Your task to perform on an android device: turn off notifications in google photos Image 0: 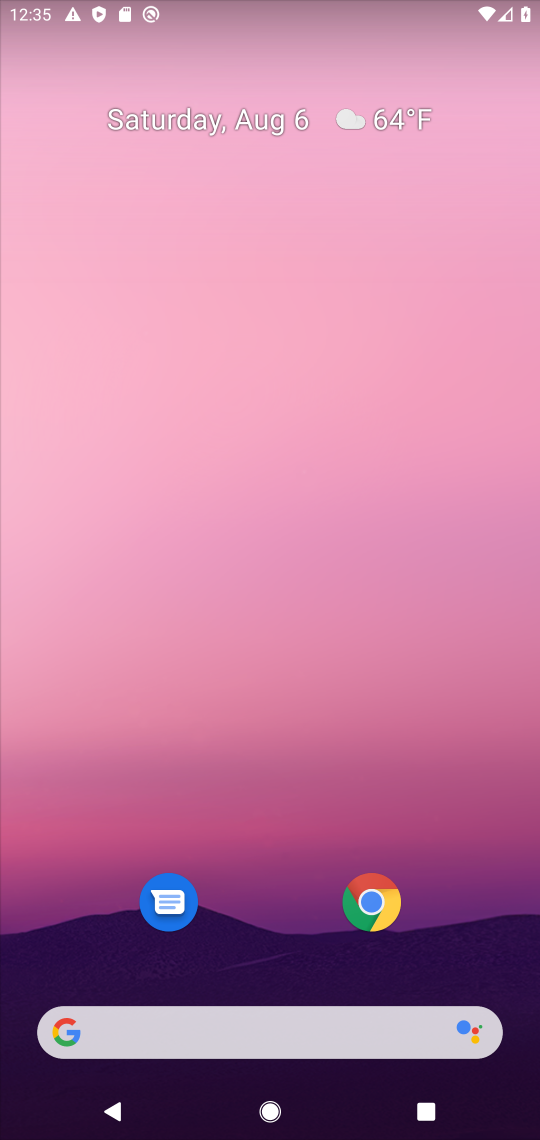
Step 0: click (387, 687)
Your task to perform on an android device: turn off notifications in google photos Image 1: 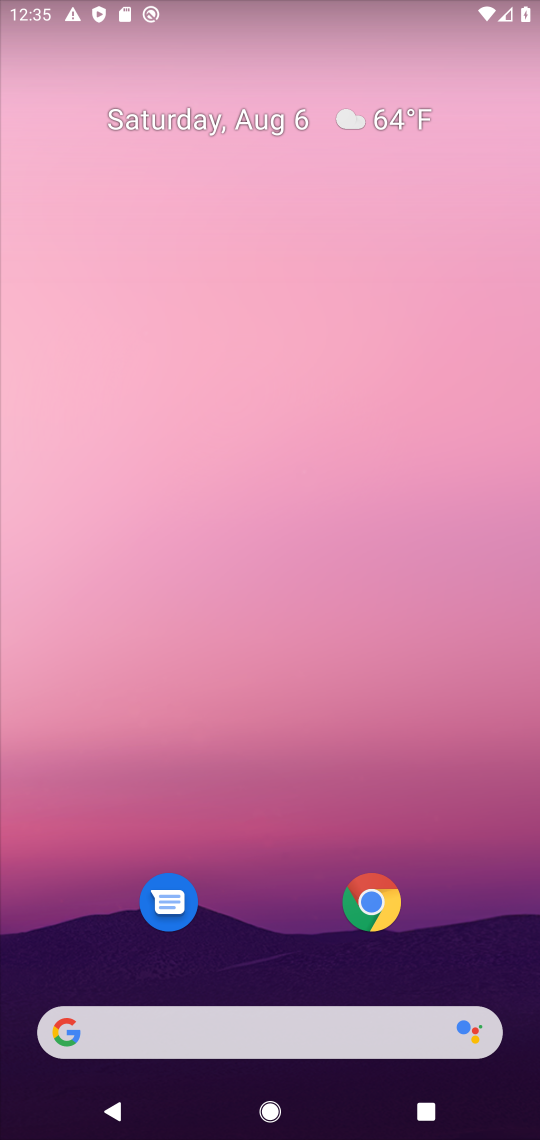
Step 1: drag from (248, 843) to (210, 179)
Your task to perform on an android device: turn off notifications in google photos Image 2: 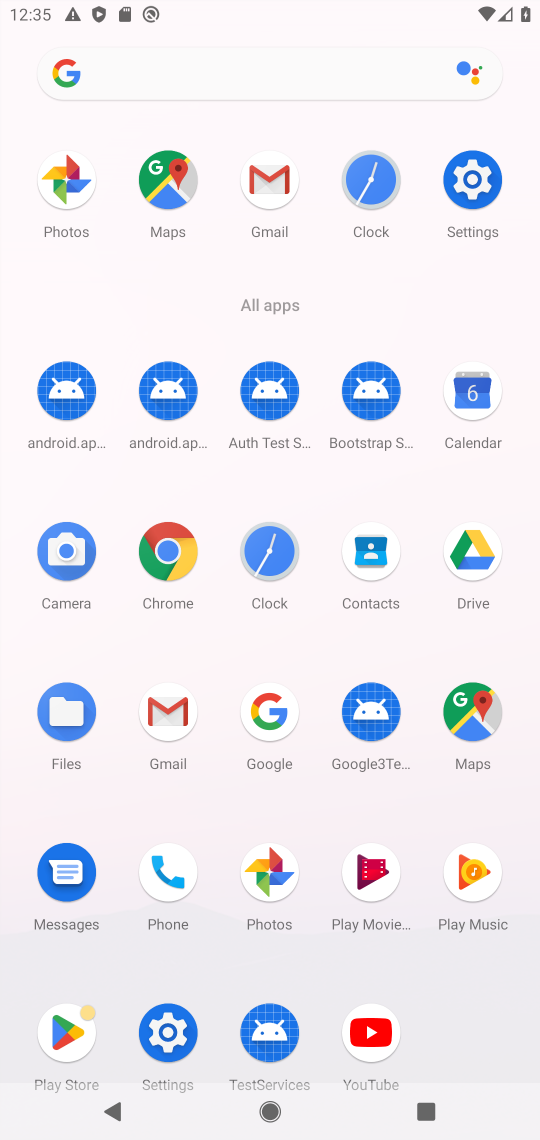
Step 2: click (63, 174)
Your task to perform on an android device: turn off notifications in google photos Image 3: 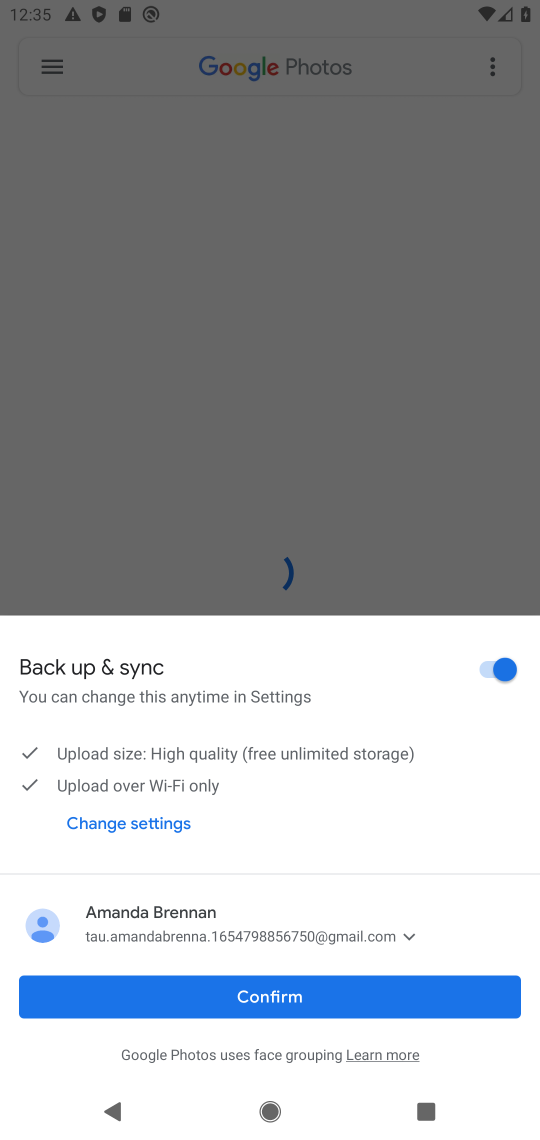
Step 3: click (269, 996)
Your task to perform on an android device: turn off notifications in google photos Image 4: 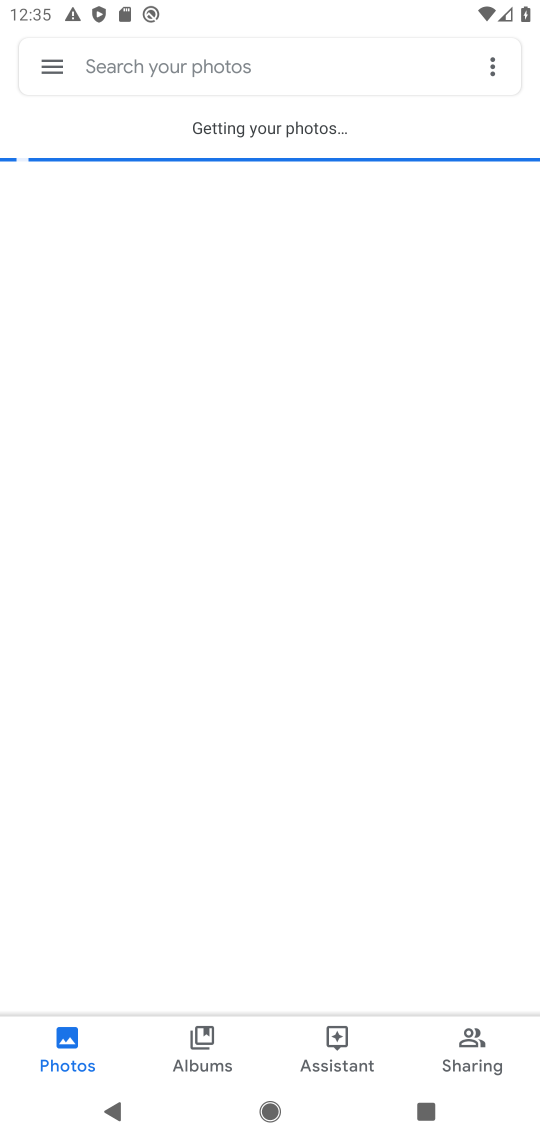
Step 4: click (47, 56)
Your task to perform on an android device: turn off notifications in google photos Image 5: 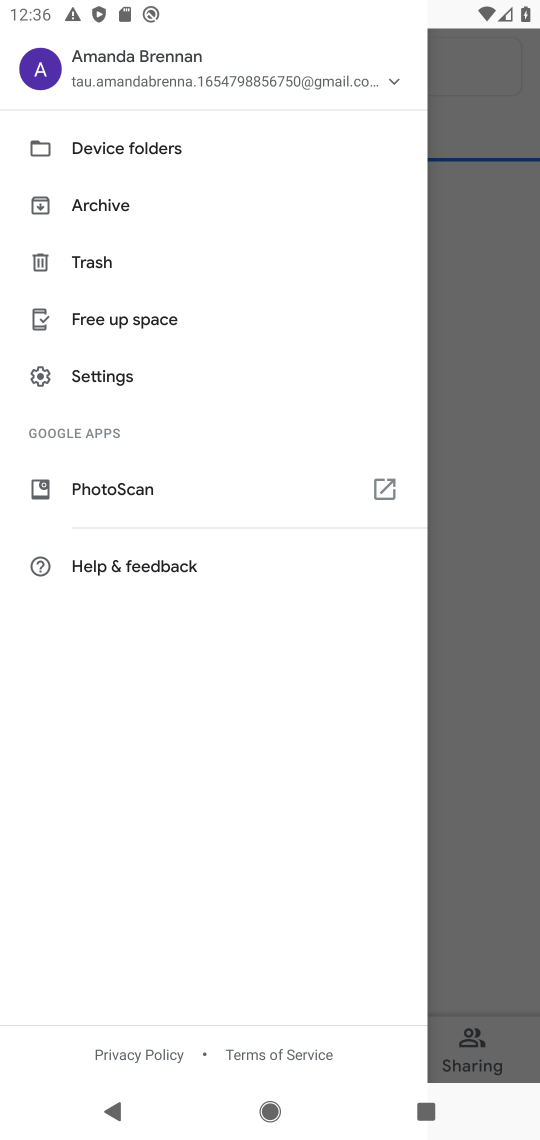
Step 5: click (103, 371)
Your task to perform on an android device: turn off notifications in google photos Image 6: 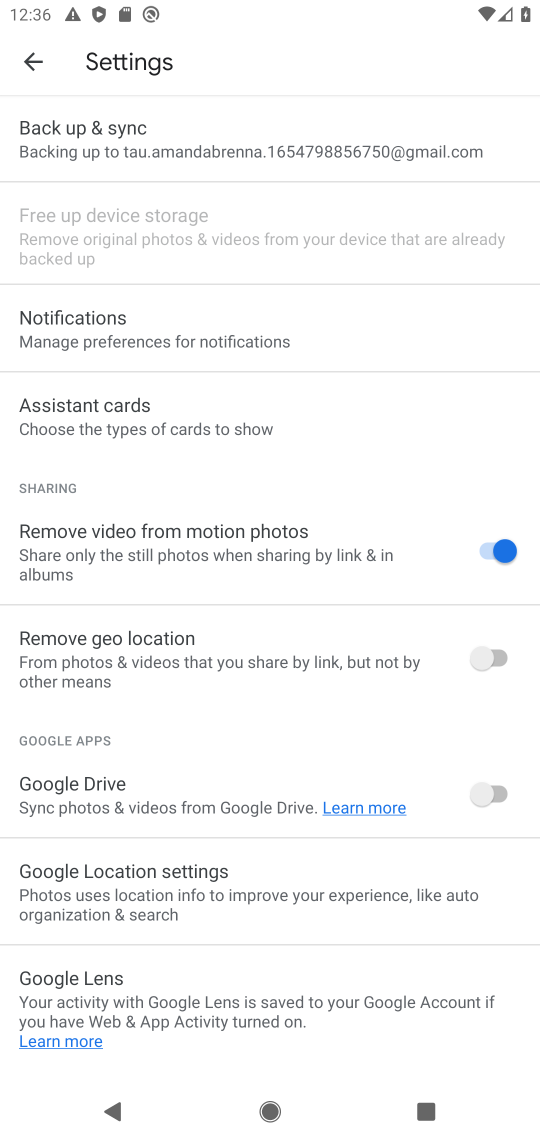
Step 6: click (84, 320)
Your task to perform on an android device: turn off notifications in google photos Image 7: 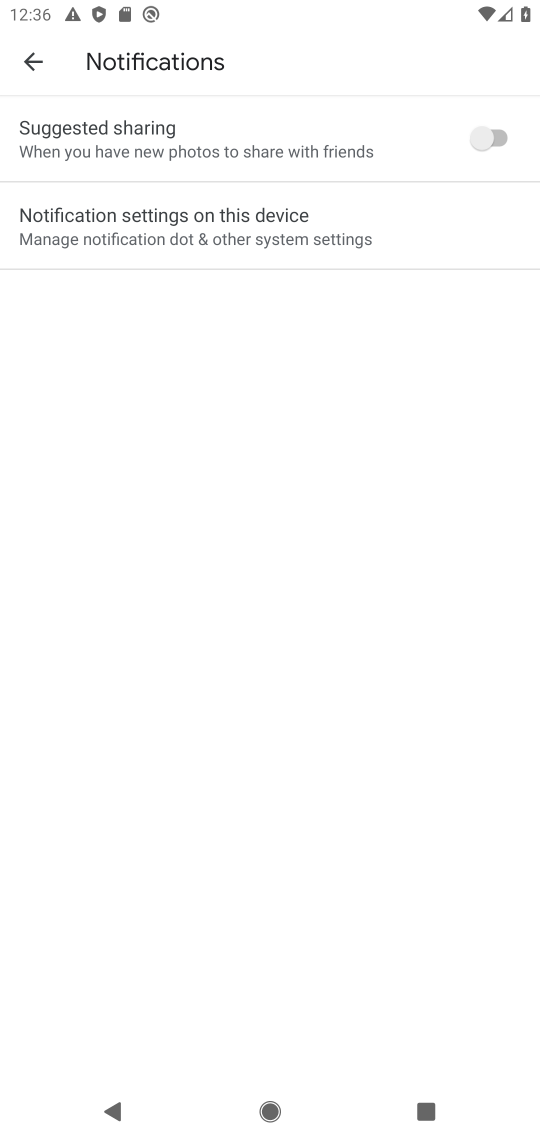
Step 7: click (185, 218)
Your task to perform on an android device: turn off notifications in google photos Image 8: 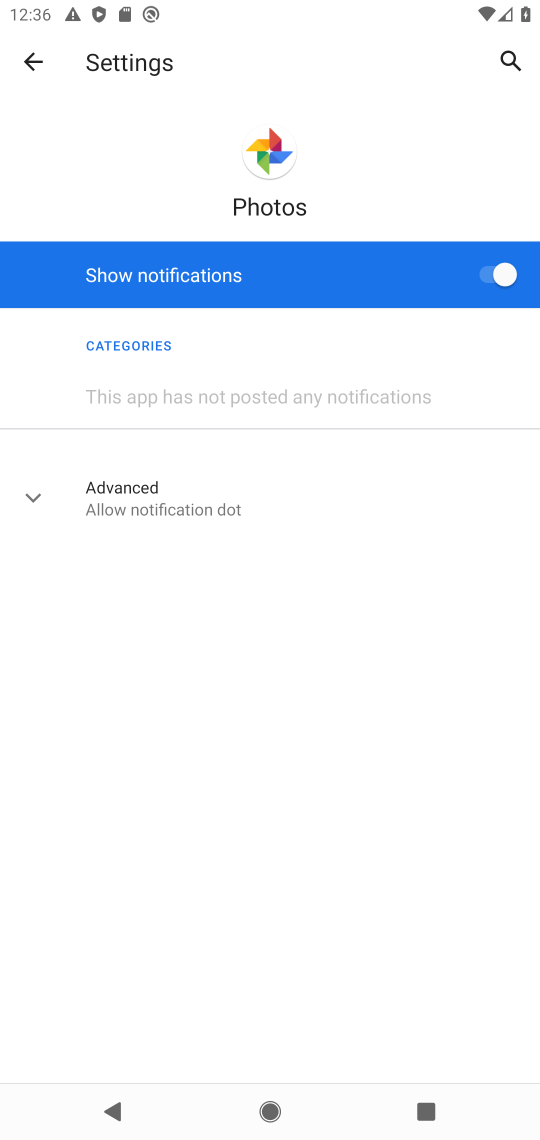
Step 8: click (501, 275)
Your task to perform on an android device: turn off notifications in google photos Image 9: 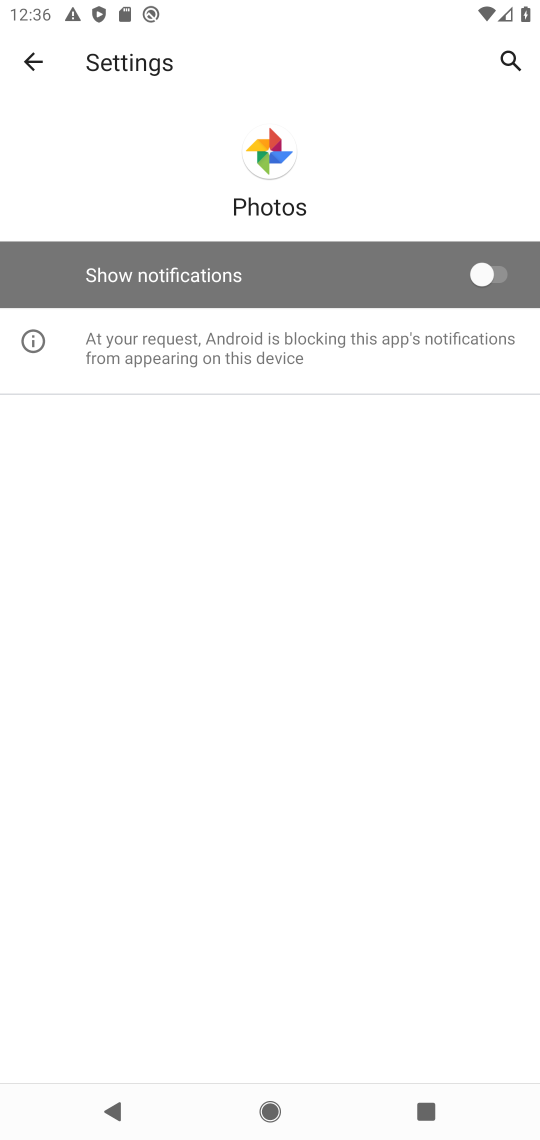
Step 9: task complete